Your task to perform on an android device: Add macbook pro 15 inch to the cart on amazon.com, then select checkout. Image 0: 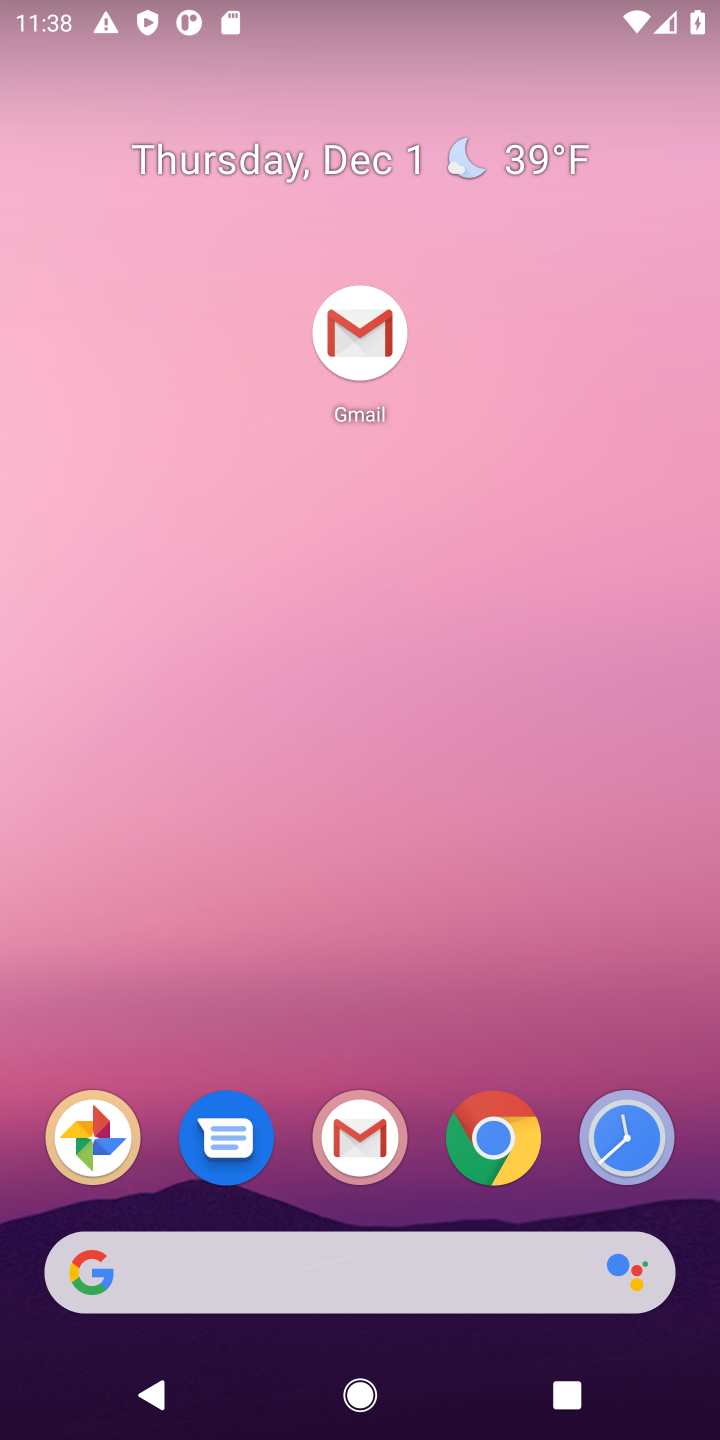
Step 0: drag from (361, 1342) to (431, 591)
Your task to perform on an android device: Add macbook pro 15 inch to the cart on amazon.com, then select checkout. Image 1: 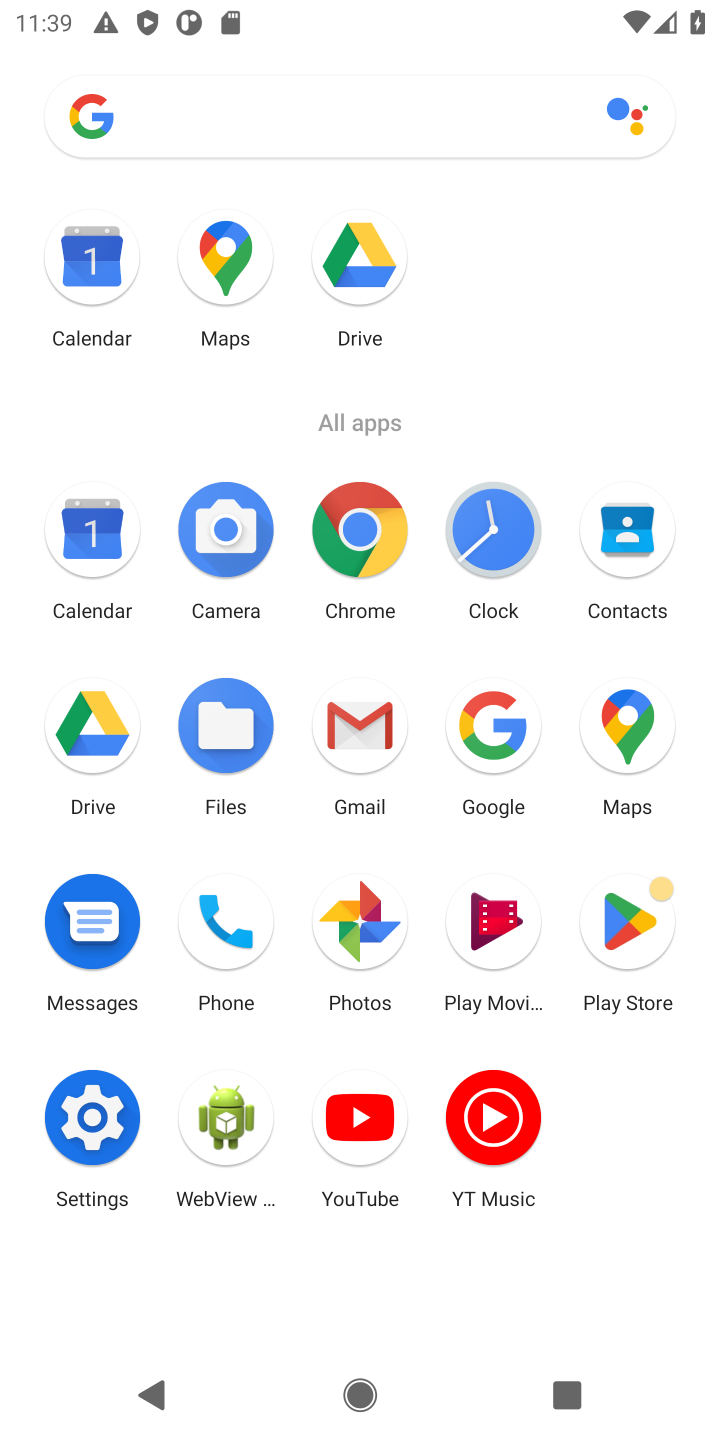
Step 1: click (492, 757)
Your task to perform on an android device: Add macbook pro 15 inch to the cart on amazon.com, then select checkout. Image 2: 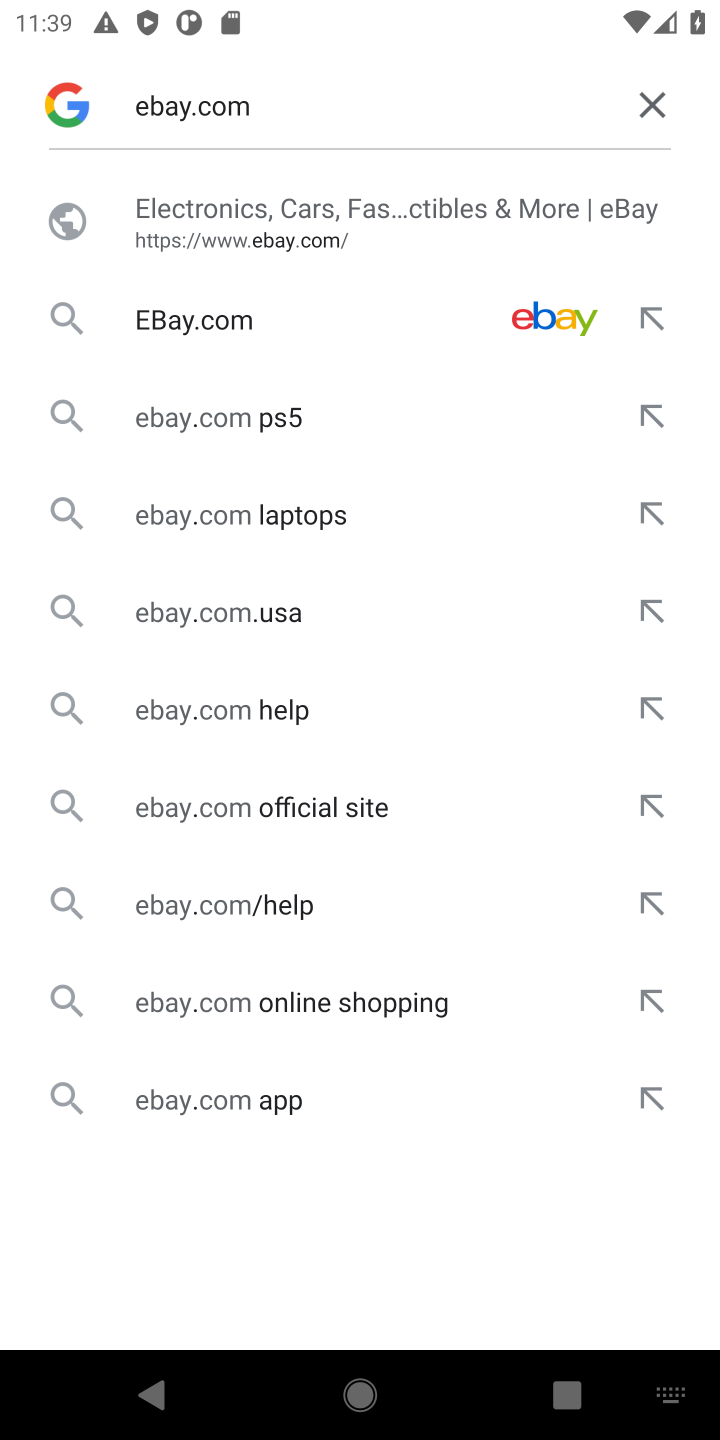
Step 2: click (346, 237)
Your task to perform on an android device: Add macbook pro 15 inch to the cart on amazon.com, then select checkout. Image 3: 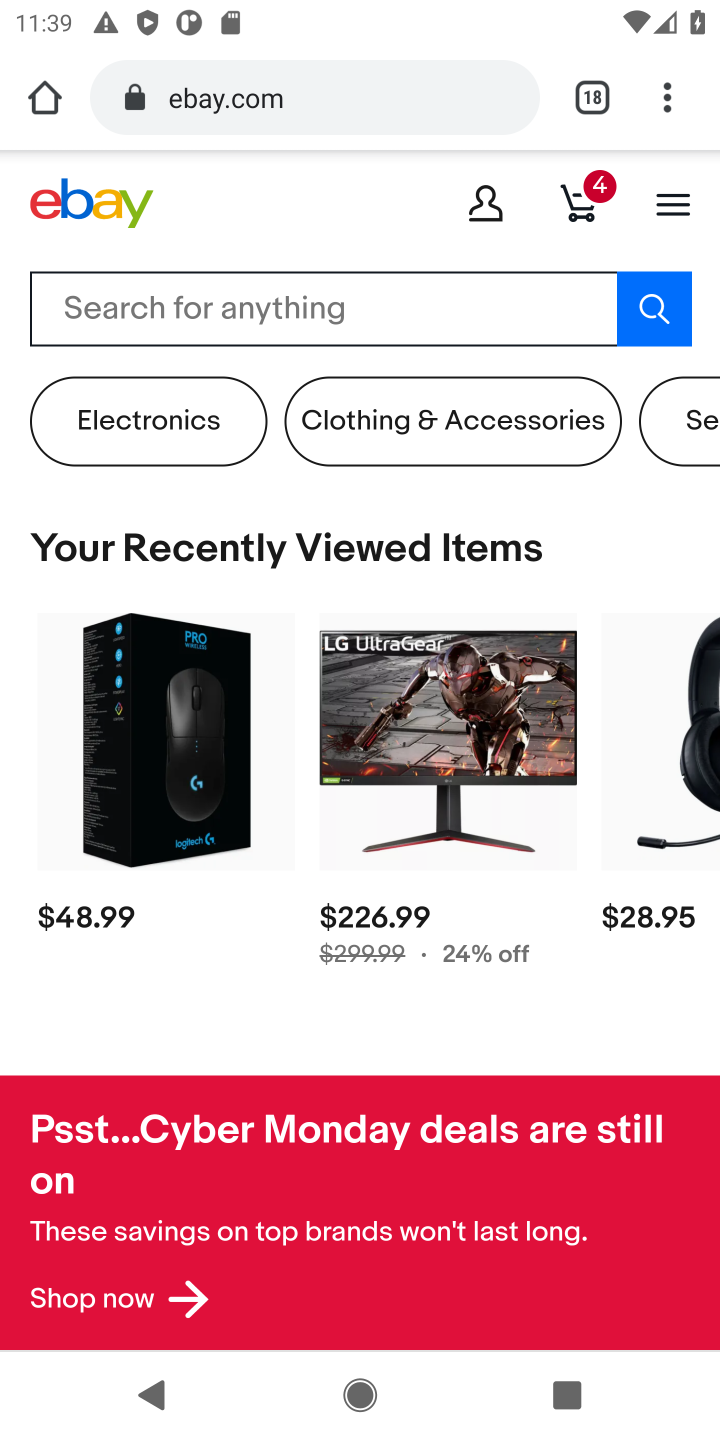
Step 3: click (424, 313)
Your task to perform on an android device: Add macbook pro 15 inch to the cart on amazon.com, then select checkout. Image 4: 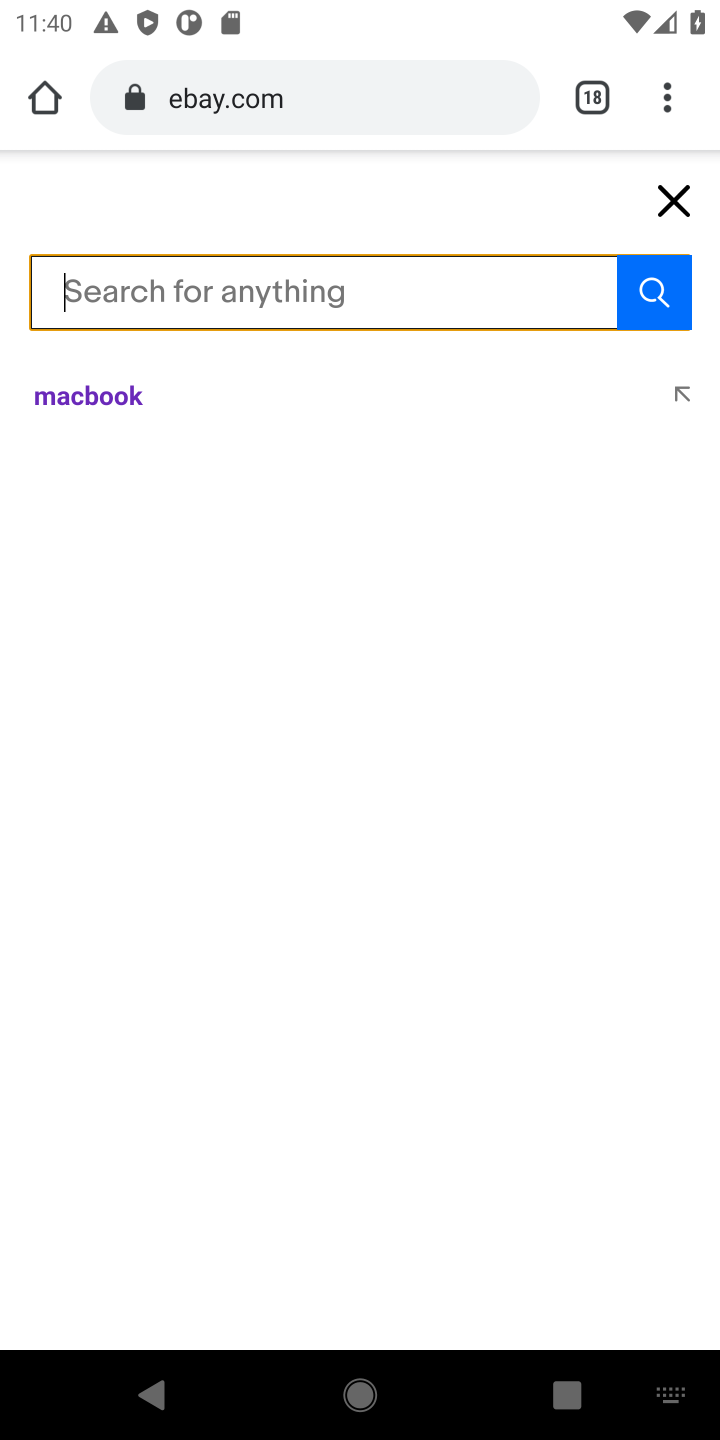
Step 4: click (391, 79)
Your task to perform on an android device: Add macbook pro 15 inch to the cart on amazon.com, then select checkout. Image 5: 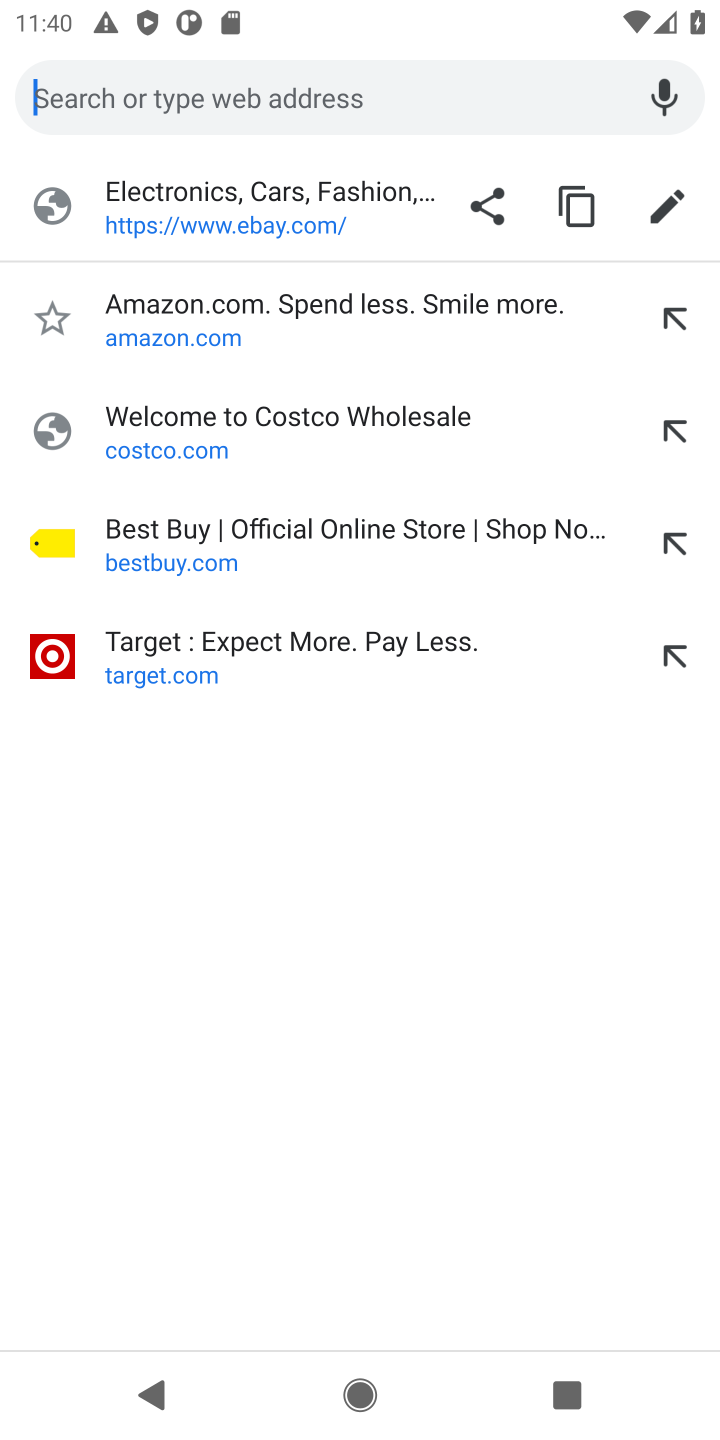
Step 5: type "amazon.com"
Your task to perform on an android device: Add macbook pro 15 inch to the cart on amazon.com, then select checkout. Image 6: 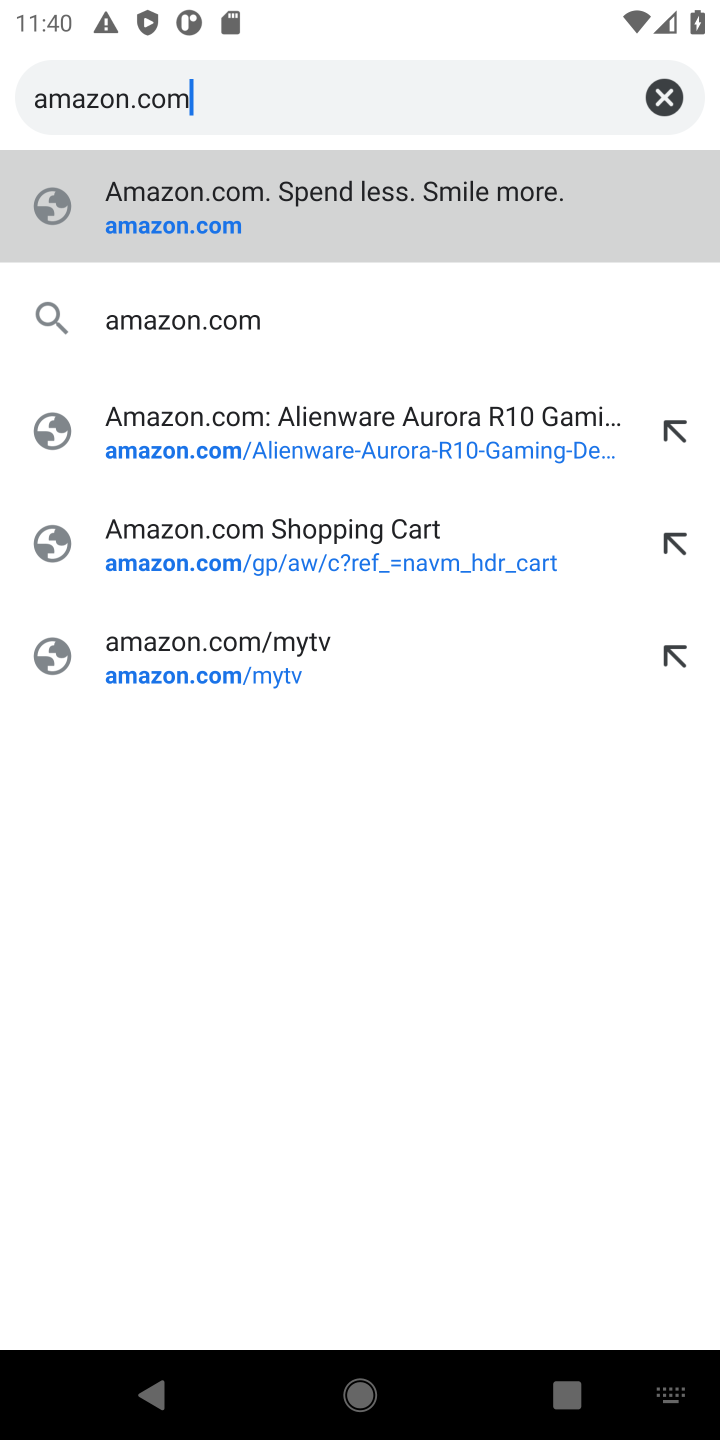
Step 6: click (454, 241)
Your task to perform on an android device: Add macbook pro 15 inch to the cart on amazon.com, then select checkout. Image 7: 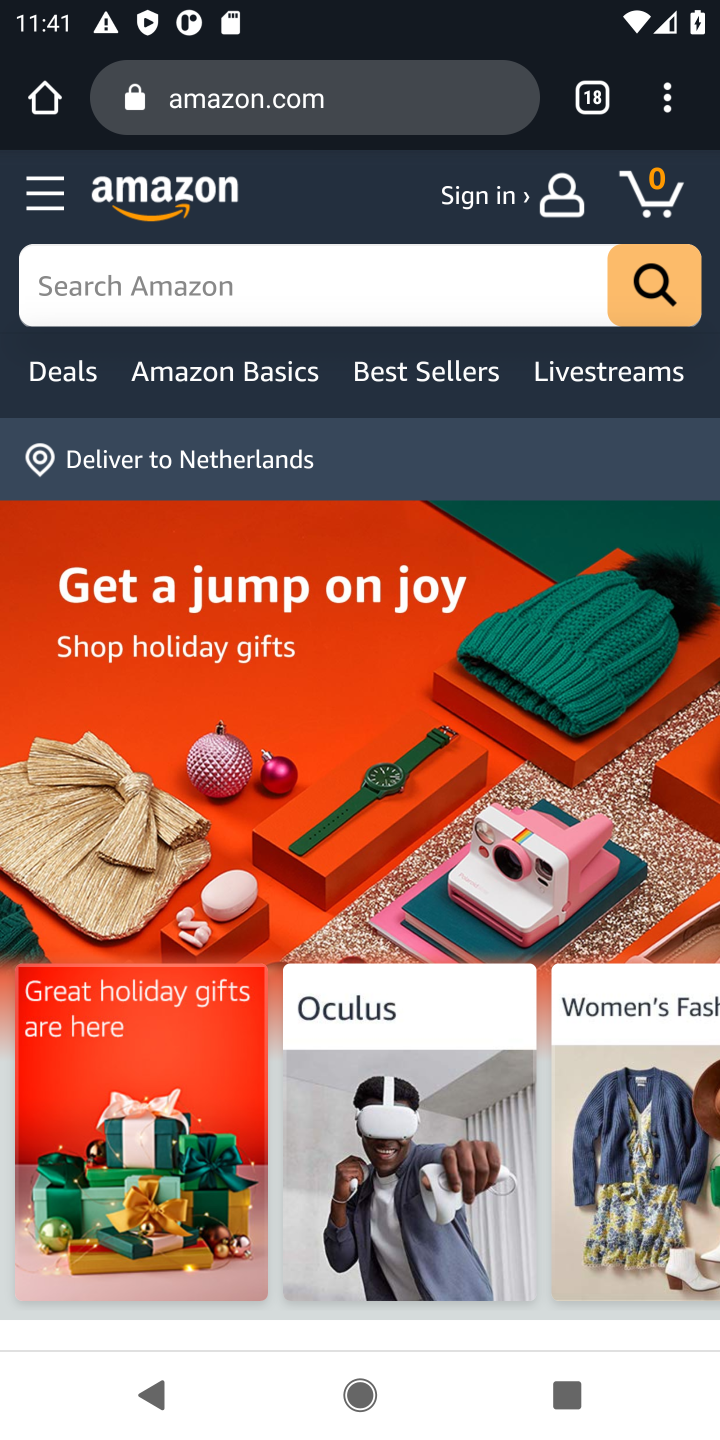
Step 7: click (375, 310)
Your task to perform on an android device: Add macbook pro 15 inch to the cart on amazon.com, then select checkout. Image 8: 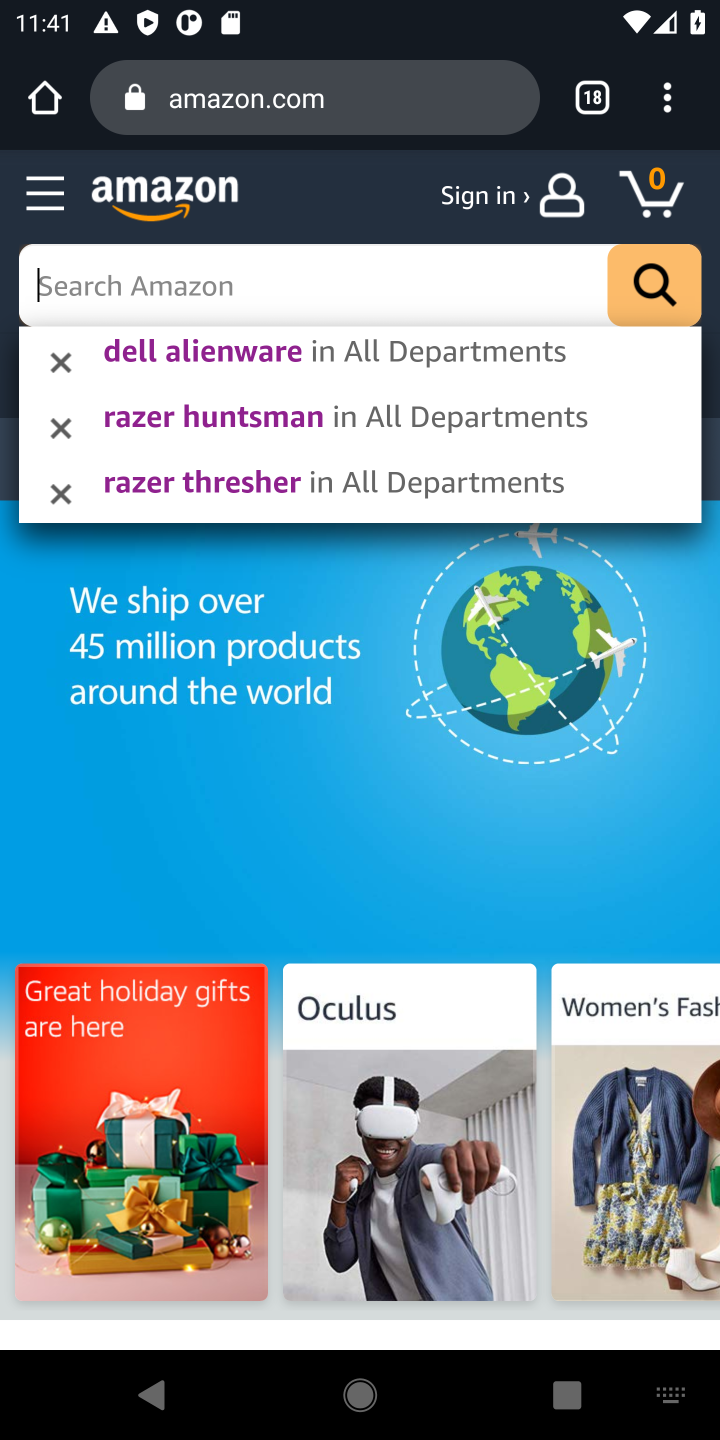
Step 8: type "macbook pro 15 inch"
Your task to perform on an android device: Add macbook pro 15 inch to the cart on amazon.com, then select checkout. Image 9: 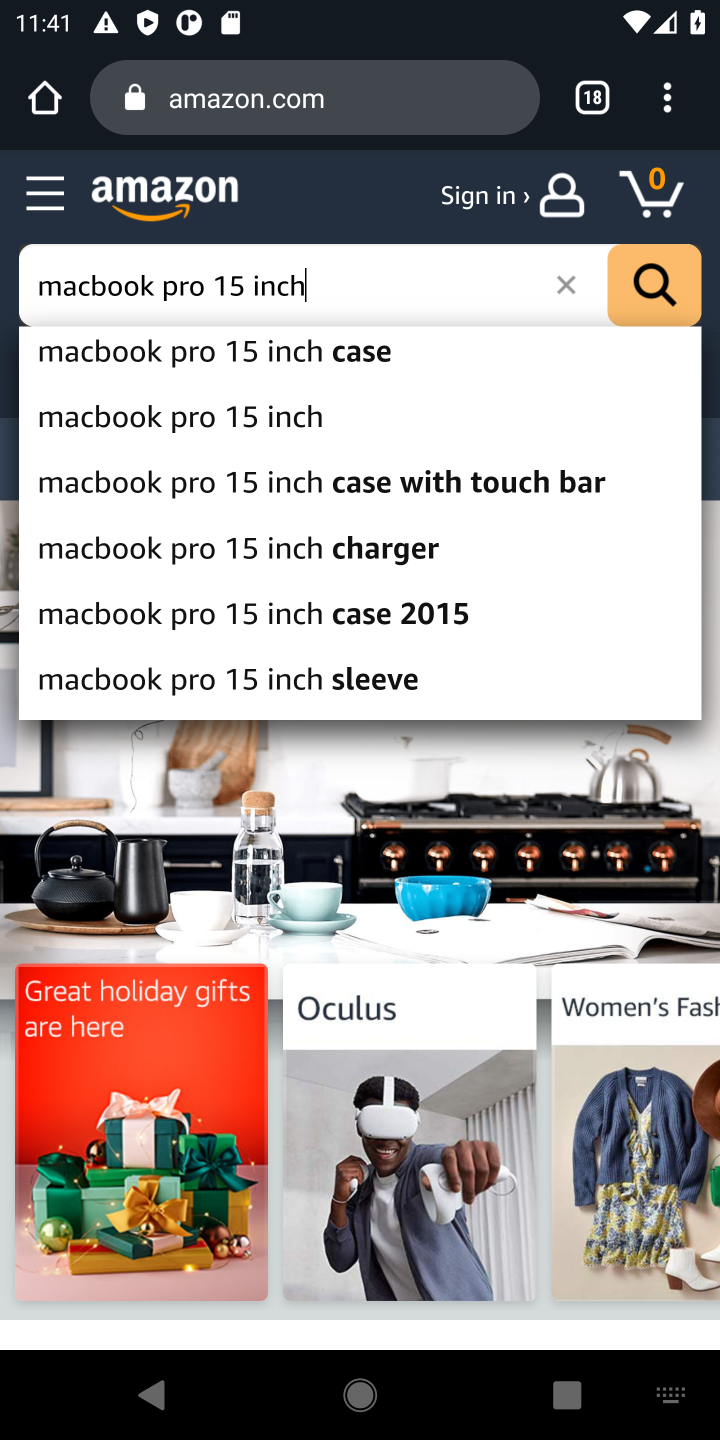
Step 9: click (287, 424)
Your task to perform on an android device: Add macbook pro 15 inch to the cart on amazon.com, then select checkout. Image 10: 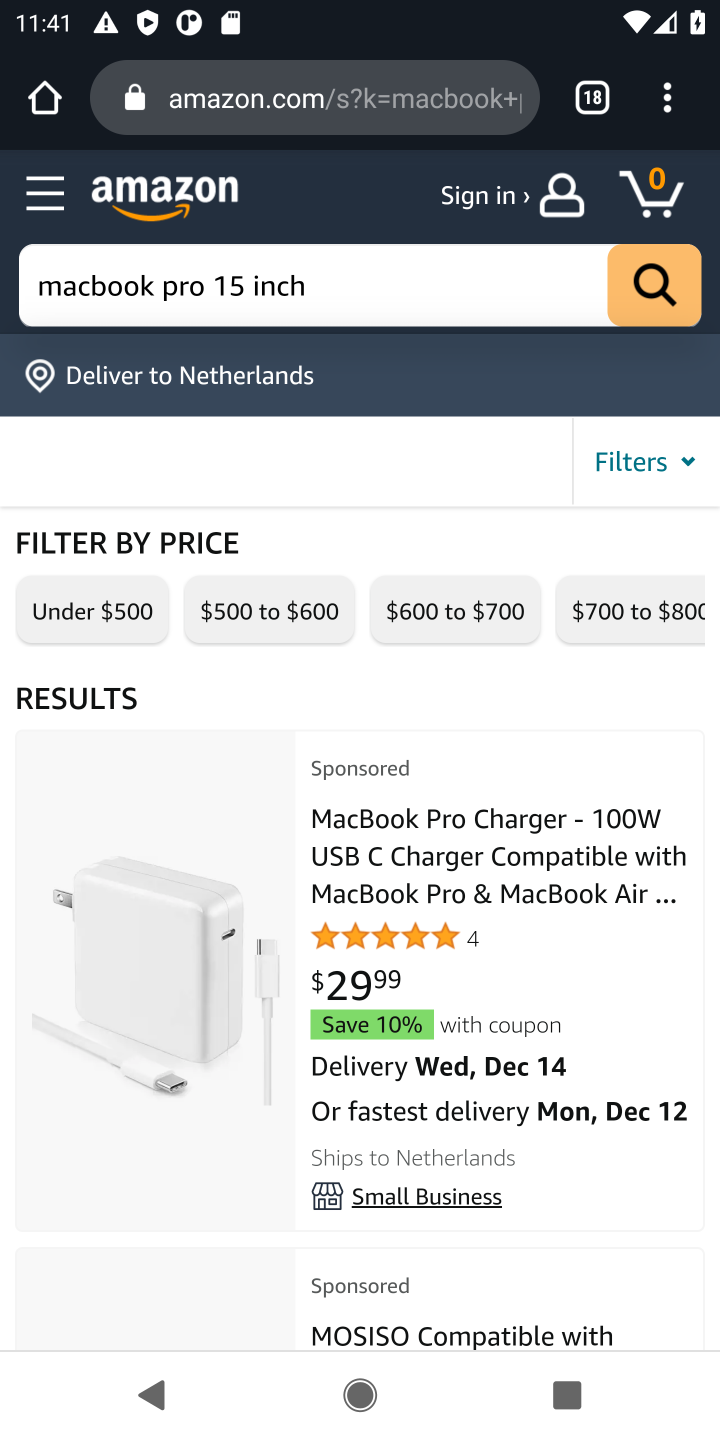
Step 10: task complete